Your task to perform on an android device: Do I have any events tomorrow? Image 0: 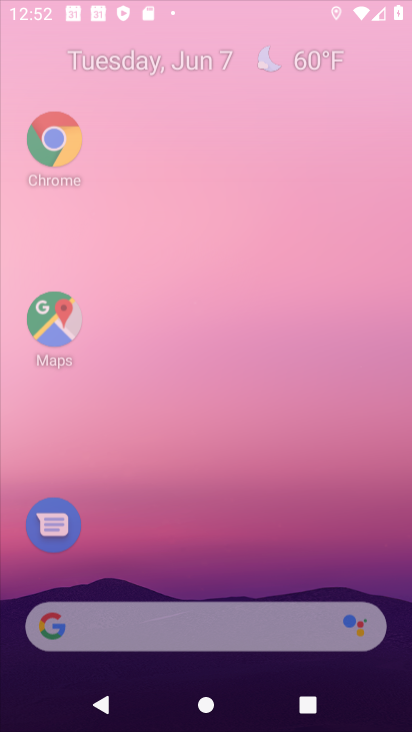
Step 0: drag from (297, 56) to (199, 2)
Your task to perform on an android device: Do I have any events tomorrow? Image 1: 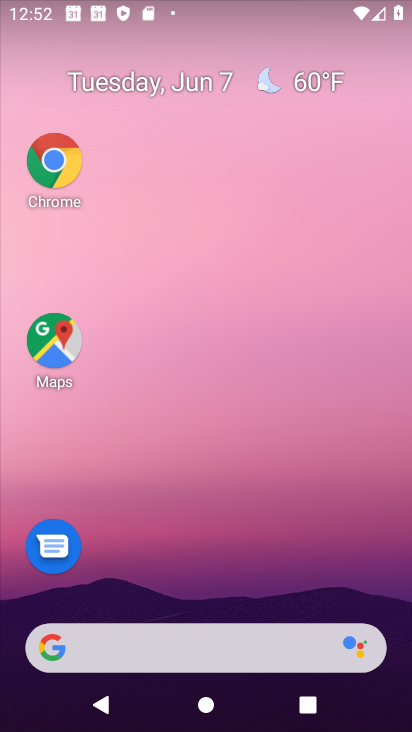
Step 1: drag from (200, 565) to (268, 95)
Your task to perform on an android device: Do I have any events tomorrow? Image 2: 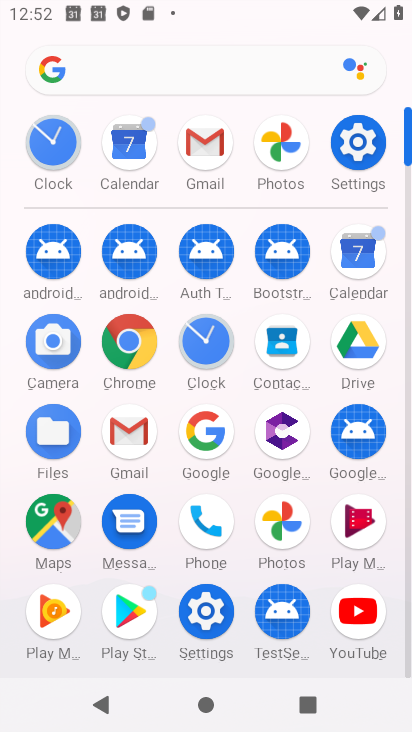
Step 2: click (350, 233)
Your task to perform on an android device: Do I have any events tomorrow? Image 3: 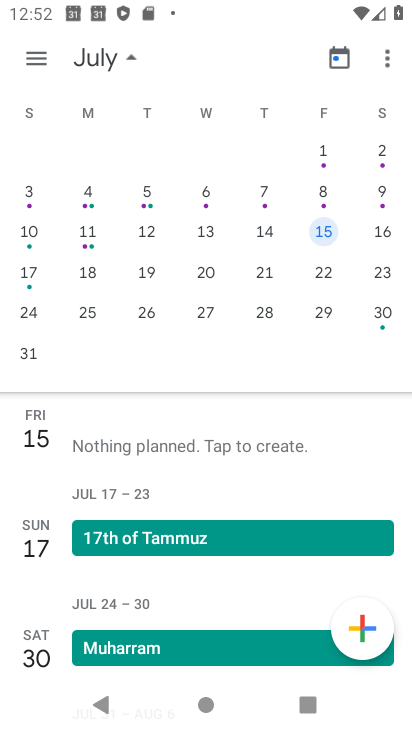
Step 3: drag from (35, 234) to (407, 144)
Your task to perform on an android device: Do I have any events tomorrow? Image 4: 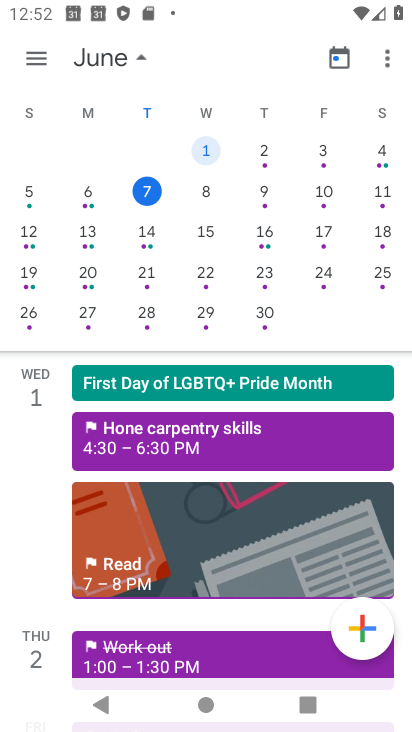
Step 4: click (205, 189)
Your task to perform on an android device: Do I have any events tomorrow? Image 5: 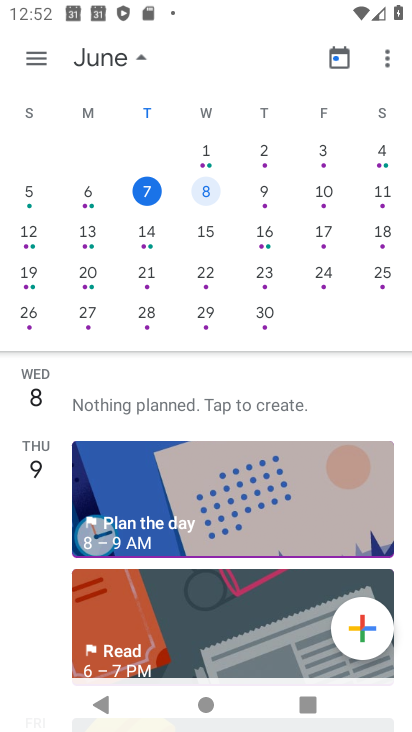
Step 5: task complete